Your task to perform on an android device: Open battery settings Image 0: 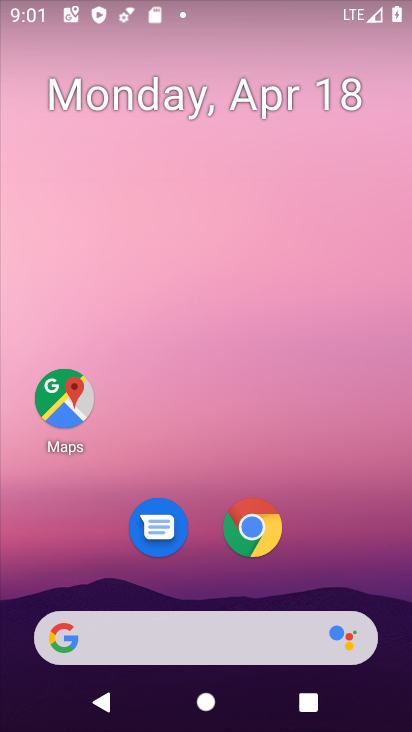
Step 0: drag from (335, 513) to (258, 9)
Your task to perform on an android device: Open battery settings Image 1: 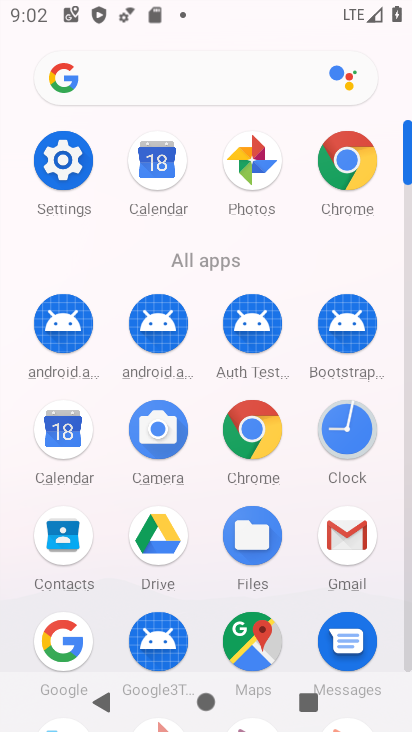
Step 1: drag from (9, 548) to (19, 175)
Your task to perform on an android device: Open battery settings Image 2: 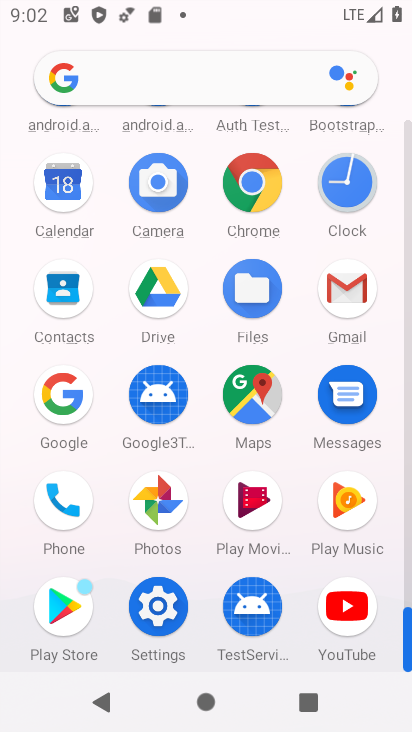
Step 2: click (150, 604)
Your task to perform on an android device: Open battery settings Image 3: 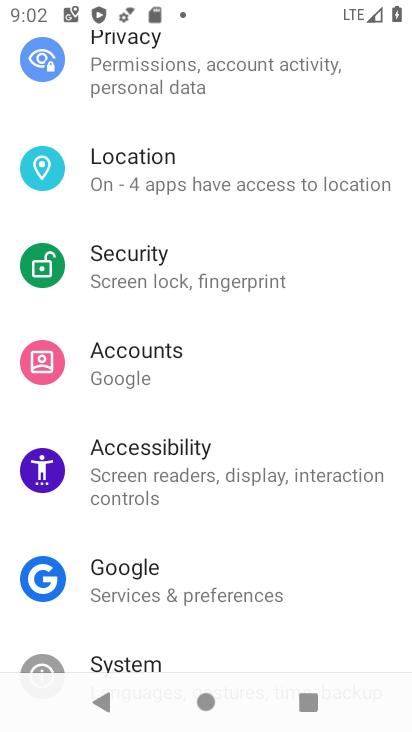
Step 3: drag from (231, 154) to (220, 534)
Your task to perform on an android device: Open battery settings Image 4: 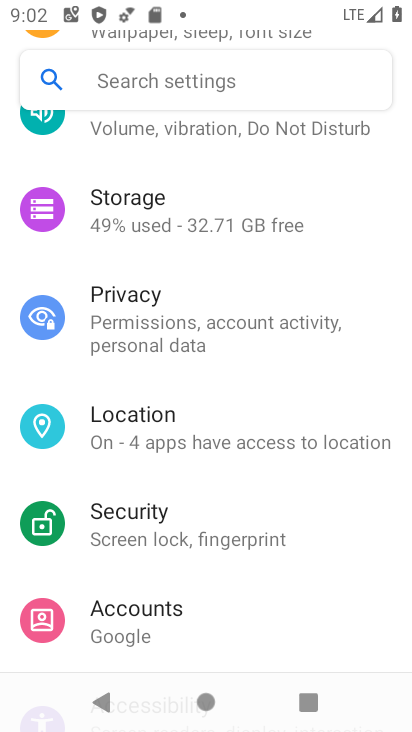
Step 4: drag from (228, 248) to (214, 569)
Your task to perform on an android device: Open battery settings Image 5: 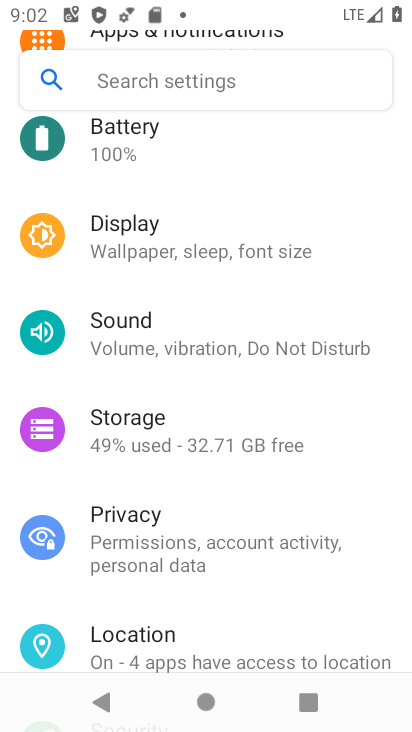
Step 5: click (151, 132)
Your task to perform on an android device: Open battery settings Image 6: 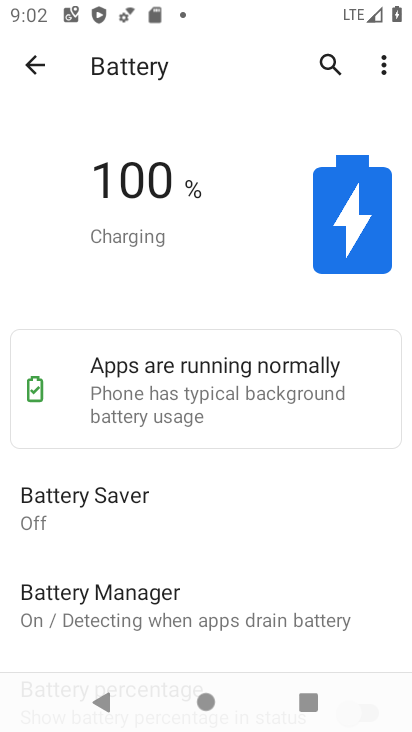
Step 6: task complete